Your task to perform on an android device: set the timer Image 0: 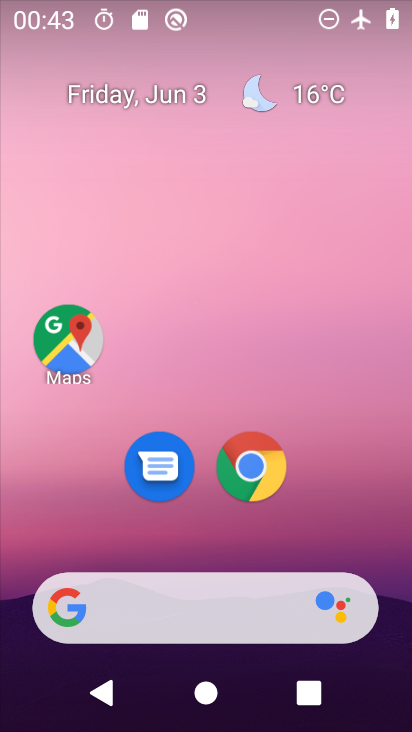
Step 0: drag from (194, 545) to (201, 220)
Your task to perform on an android device: set the timer Image 1: 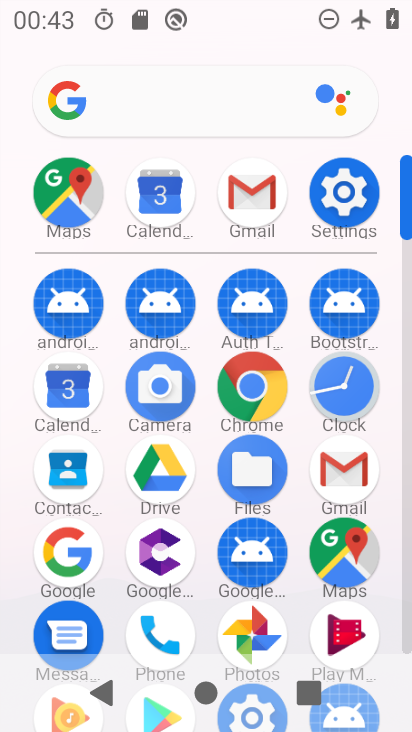
Step 1: click (335, 395)
Your task to perform on an android device: set the timer Image 2: 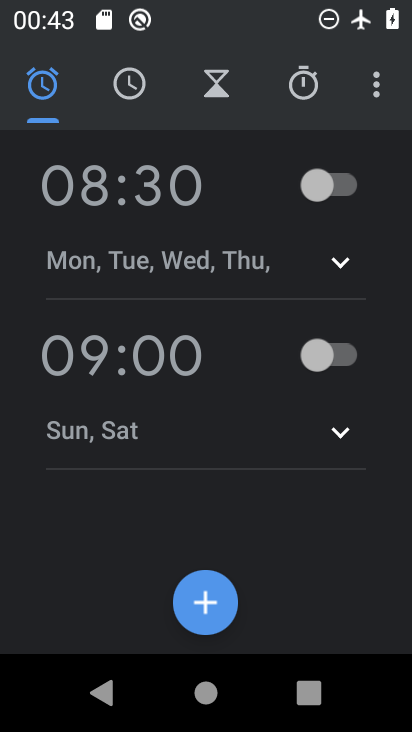
Step 2: click (227, 93)
Your task to perform on an android device: set the timer Image 3: 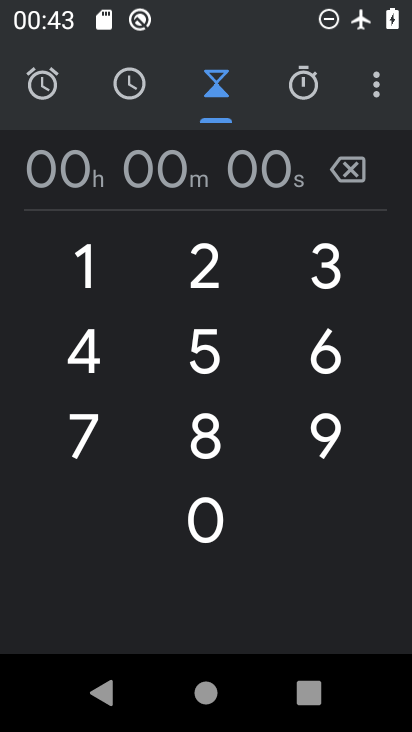
Step 3: click (268, 187)
Your task to perform on an android device: set the timer Image 4: 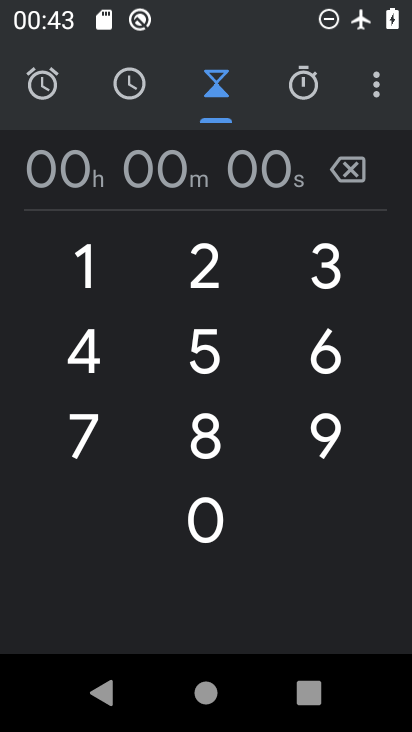
Step 4: type "11"
Your task to perform on an android device: set the timer Image 5: 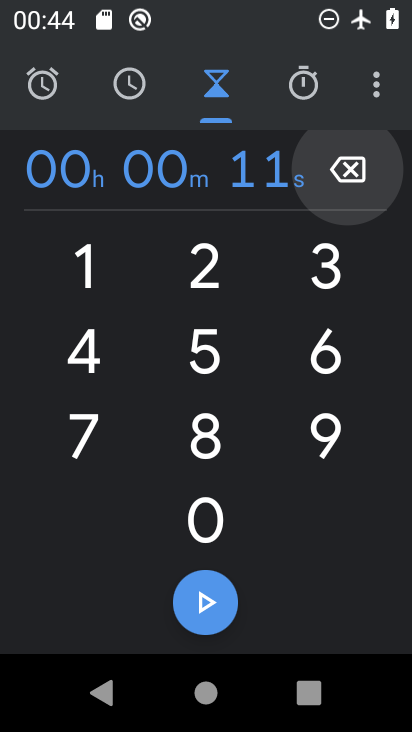
Step 5: task complete